Your task to perform on an android device: Open calendar and show me the fourth week of next month Image 0: 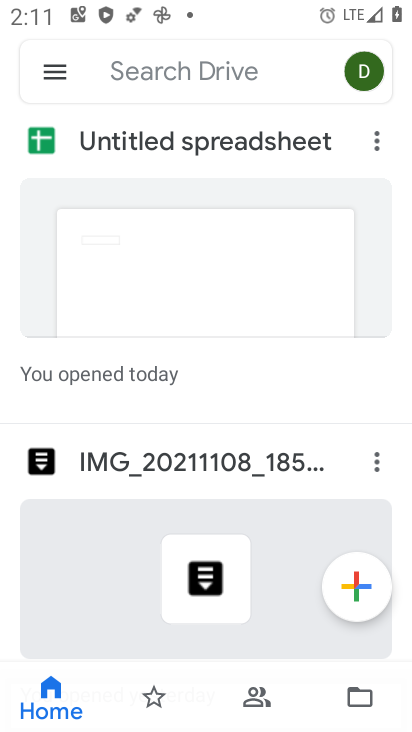
Step 0: press home button
Your task to perform on an android device: Open calendar and show me the fourth week of next month Image 1: 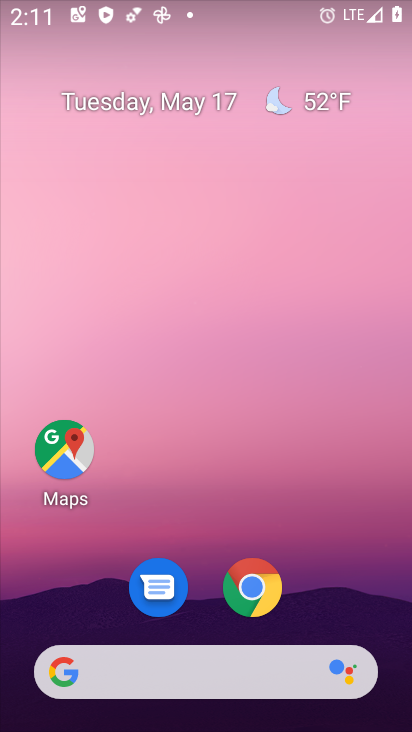
Step 1: drag from (354, 561) to (195, 13)
Your task to perform on an android device: Open calendar and show me the fourth week of next month Image 2: 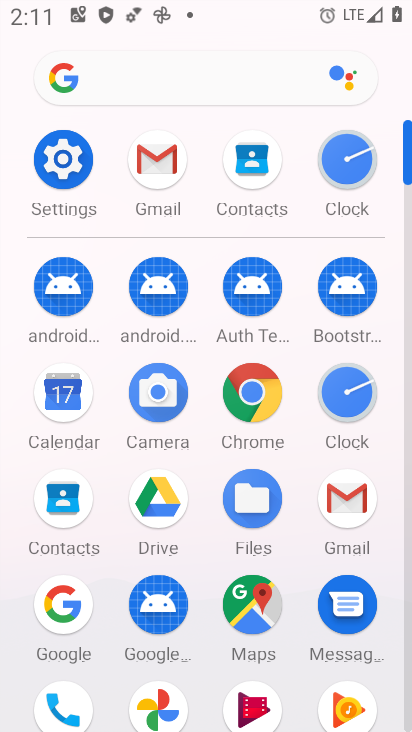
Step 2: click (83, 401)
Your task to perform on an android device: Open calendar and show me the fourth week of next month Image 3: 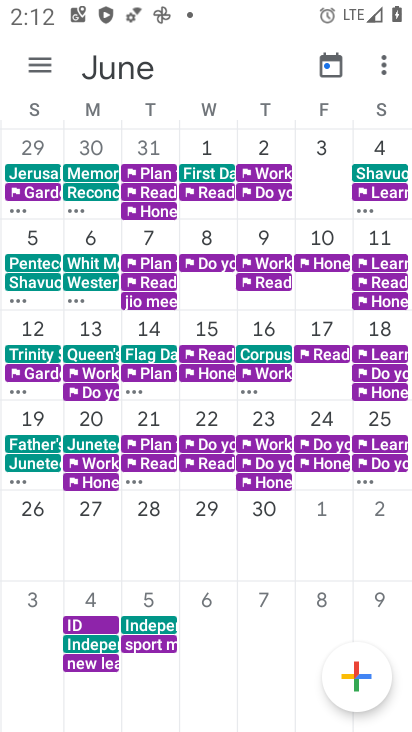
Step 3: task complete